Your task to perform on an android device: Toggle the flashlight Image 0: 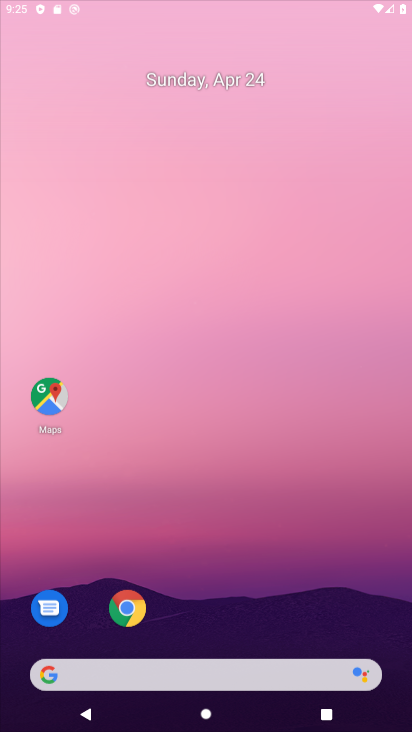
Step 0: click (242, 110)
Your task to perform on an android device: Toggle the flashlight Image 1: 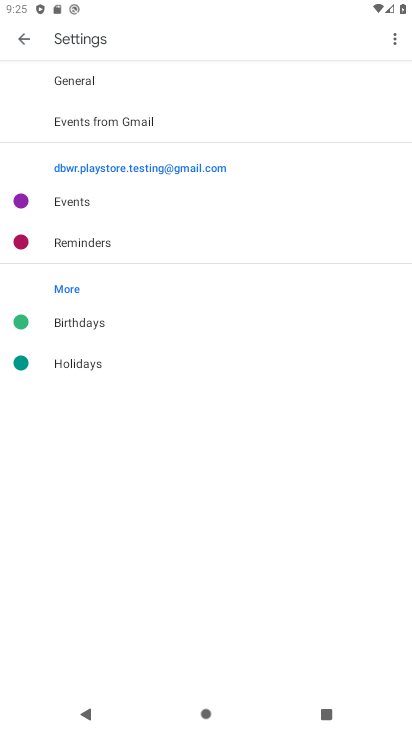
Step 1: press home button
Your task to perform on an android device: Toggle the flashlight Image 2: 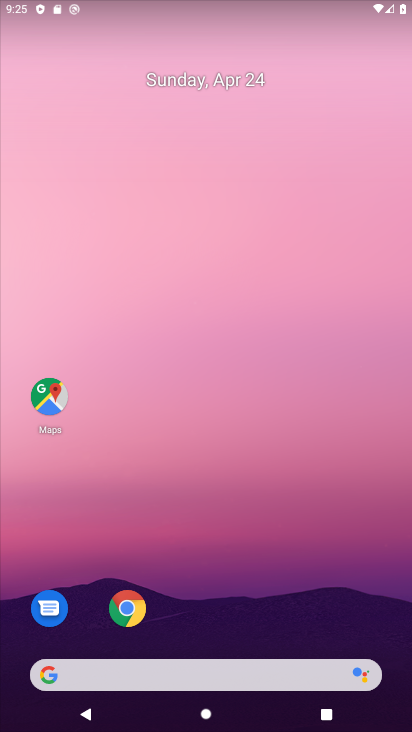
Step 2: drag from (267, 687) to (223, 97)
Your task to perform on an android device: Toggle the flashlight Image 3: 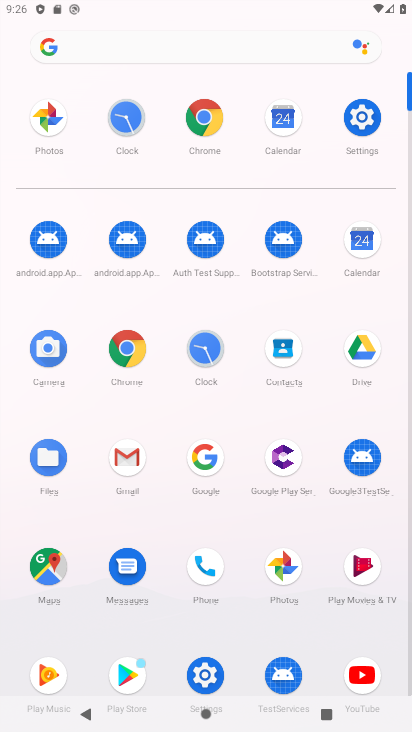
Step 3: click (354, 134)
Your task to perform on an android device: Toggle the flashlight Image 4: 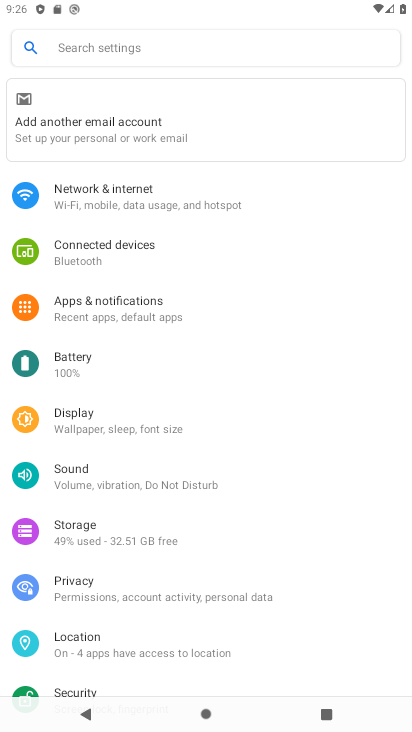
Step 4: click (104, 48)
Your task to perform on an android device: Toggle the flashlight Image 5: 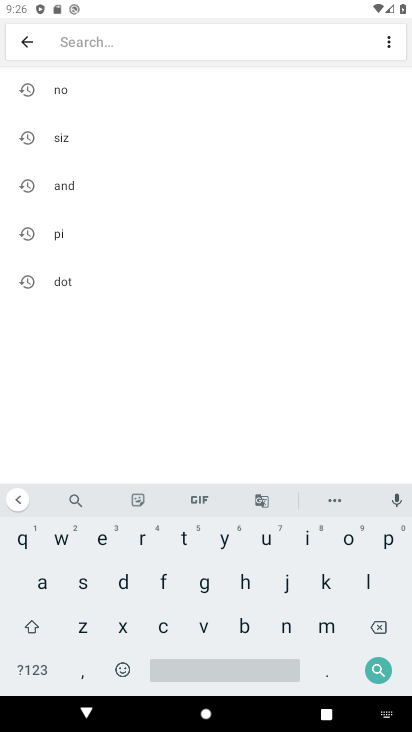
Step 5: click (167, 583)
Your task to perform on an android device: Toggle the flashlight Image 6: 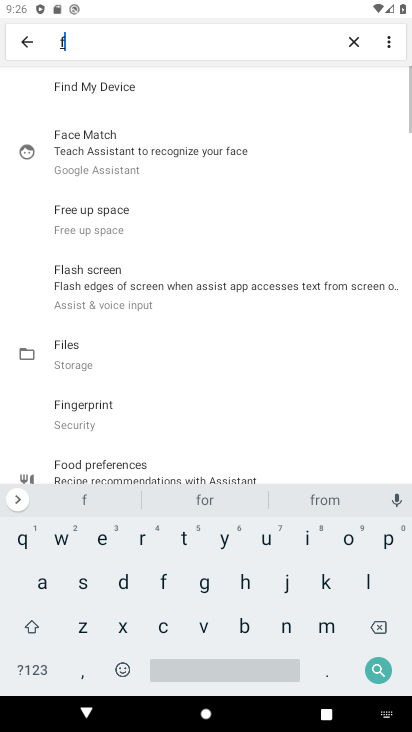
Step 6: click (359, 585)
Your task to perform on an android device: Toggle the flashlight Image 7: 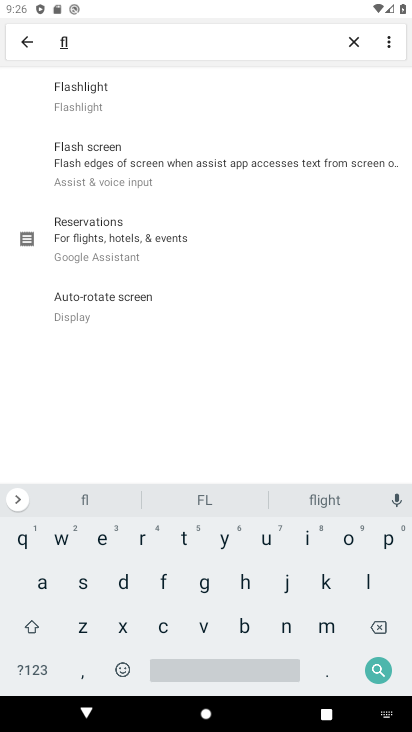
Step 7: click (194, 107)
Your task to perform on an android device: Toggle the flashlight Image 8: 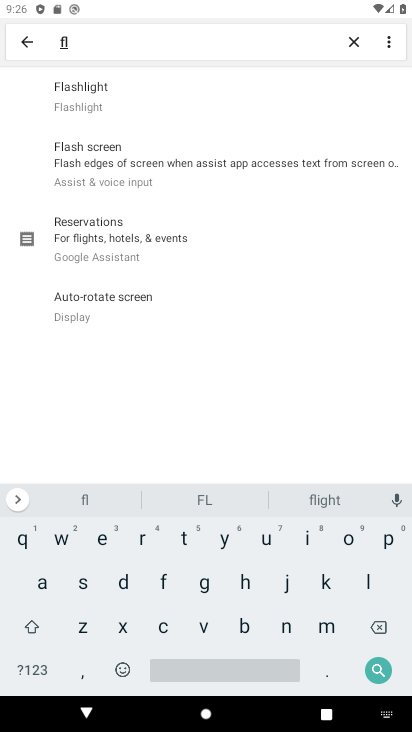
Step 8: task complete